Your task to perform on an android device: snooze an email in the gmail app Image 0: 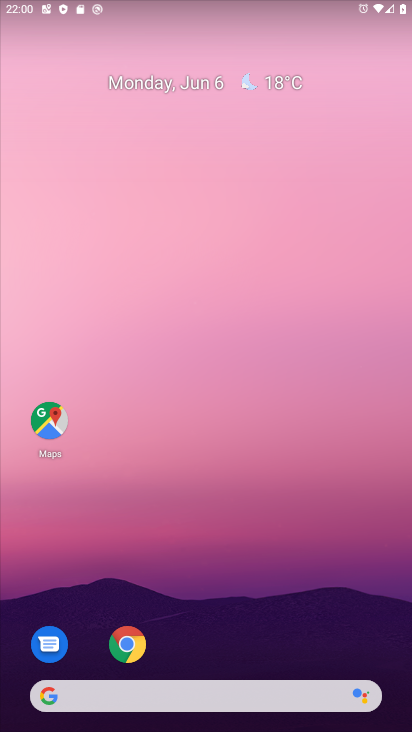
Step 0: drag from (335, 590) to (334, 229)
Your task to perform on an android device: snooze an email in the gmail app Image 1: 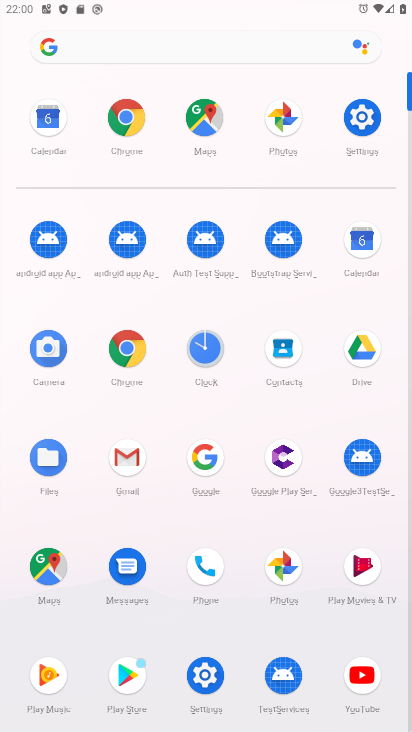
Step 1: click (134, 464)
Your task to perform on an android device: snooze an email in the gmail app Image 2: 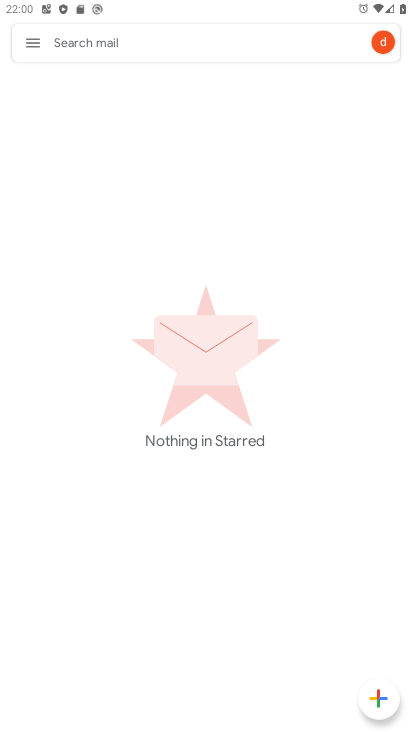
Step 2: click (41, 50)
Your task to perform on an android device: snooze an email in the gmail app Image 3: 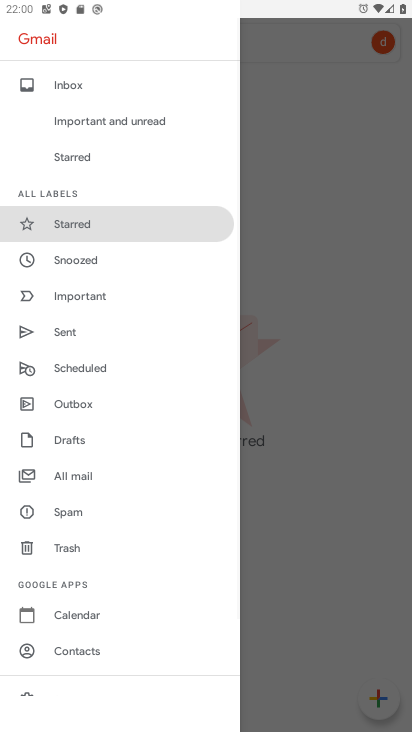
Step 3: click (109, 266)
Your task to perform on an android device: snooze an email in the gmail app Image 4: 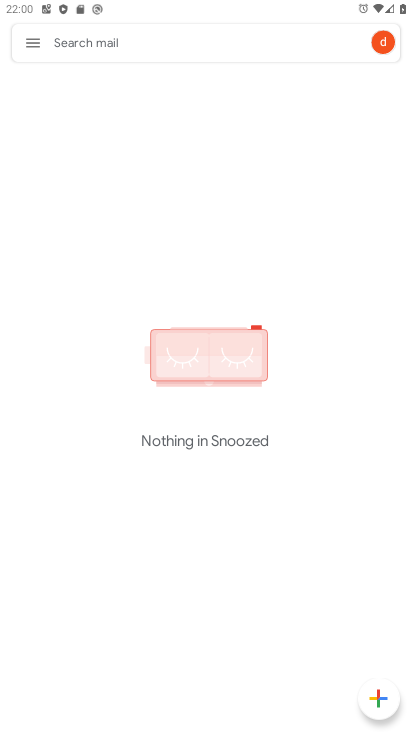
Step 4: task complete